Your task to perform on an android device: change keyboard looks Image 0: 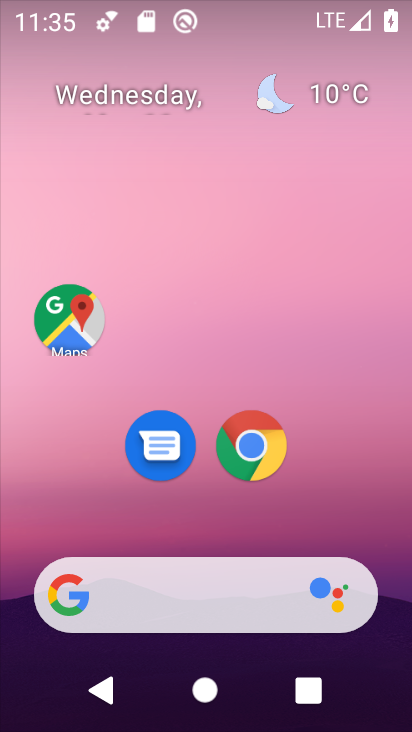
Step 0: drag from (231, 457) to (304, 23)
Your task to perform on an android device: change keyboard looks Image 1: 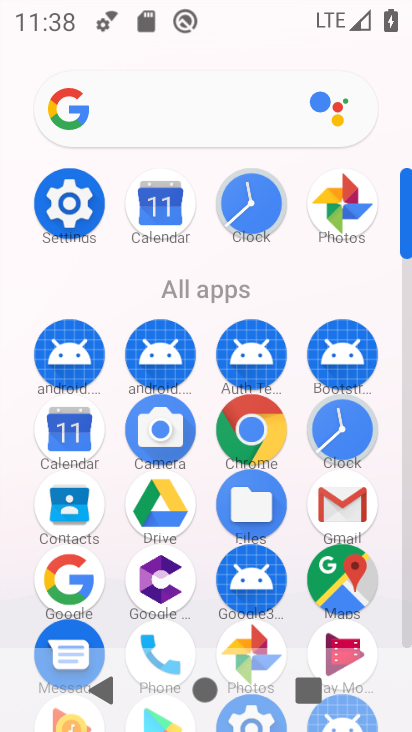
Step 1: click (60, 193)
Your task to perform on an android device: change keyboard looks Image 2: 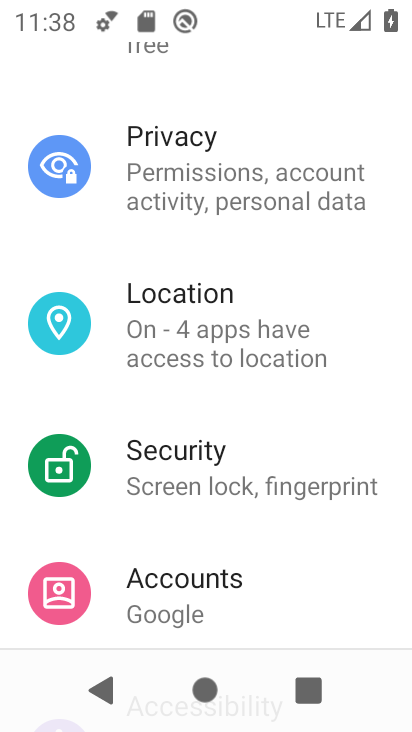
Step 2: drag from (246, 527) to (335, 43)
Your task to perform on an android device: change keyboard looks Image 3: 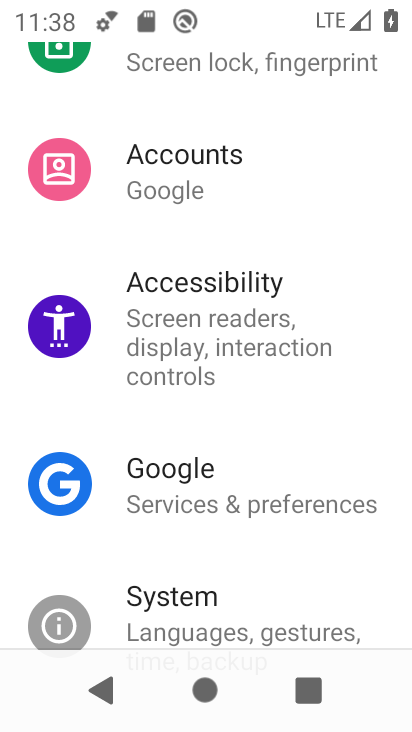
Step 3: drag from (187, 582) to (321, 122)
Your task to perform on an android device: change keyboard looks Image 4: 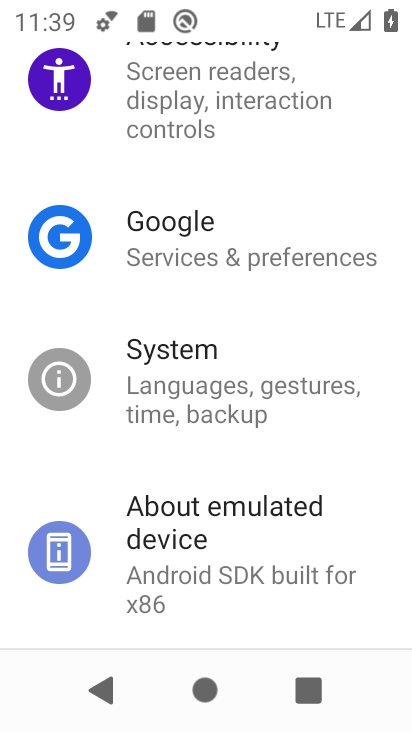
Step 4: drag from (169, 547) to (338, 0)
Your task to perform on an android device: change keyboard looks Image 5: 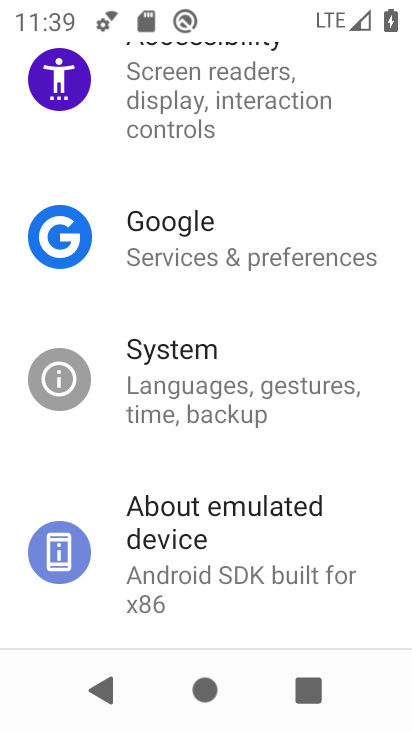
Step 5: click (208, 368)
Your task to perform on an android device: change keyboard looks Image 6: 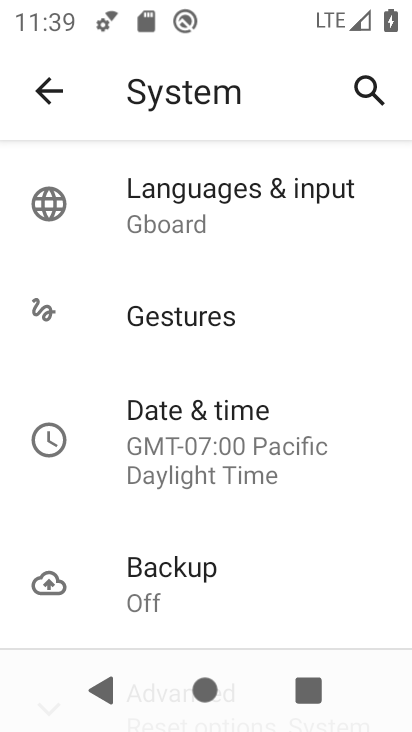
Step 6: click (177, 216)
Your task to perform on an android device: change keyboard looks Image 7: 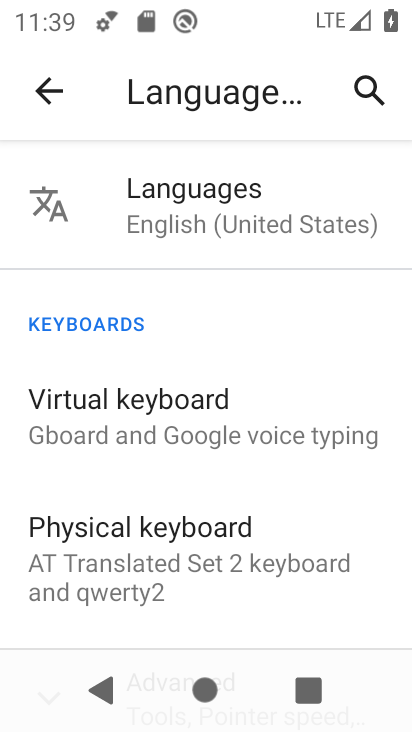
Step 7: click (113, 412)
Your task to perform on an android device: change keyboard looks Image 8: 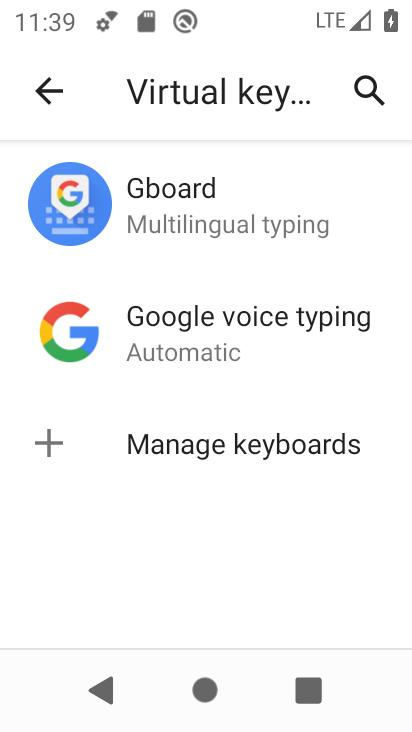
Step 8: click (152, 222)
Your task to perform on an android device: change keyboard looks Image 9: 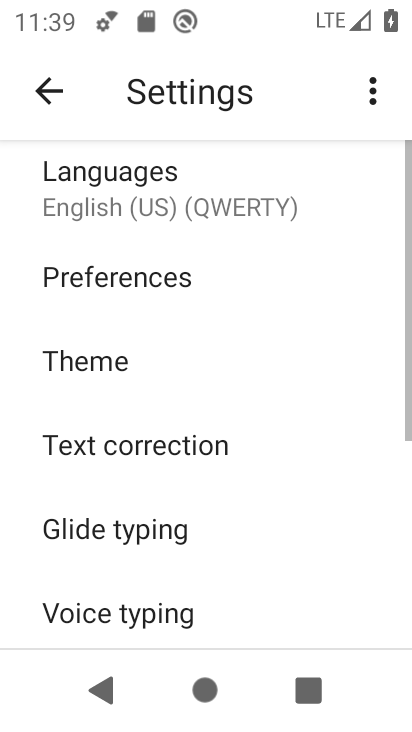
Step 9: click (88, 361)
Your task to perform on an android device: change keyboard looks Image 10: 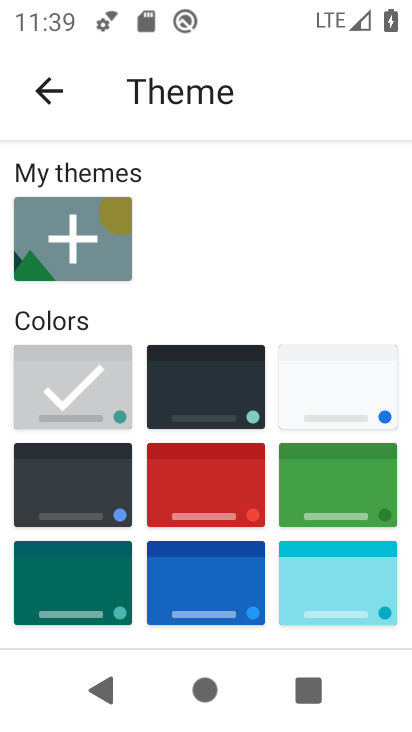
Step 10: click (194, 474)
Your task to perform on an android device: change keyboard looks Image 11: 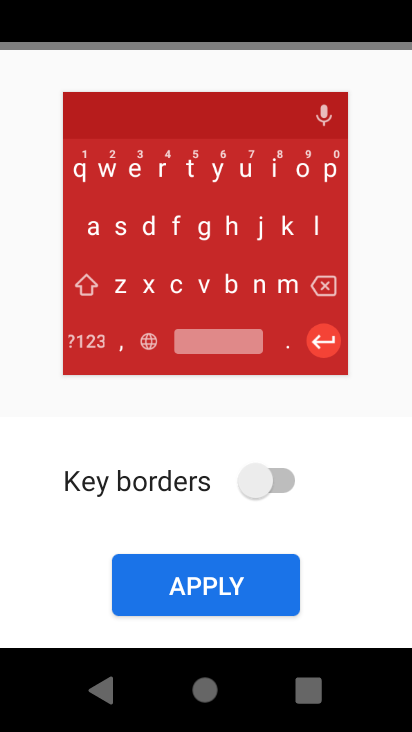
Step 11: click (171, 576)
Your task to perform on an android device: change keyboard looks Image 12: 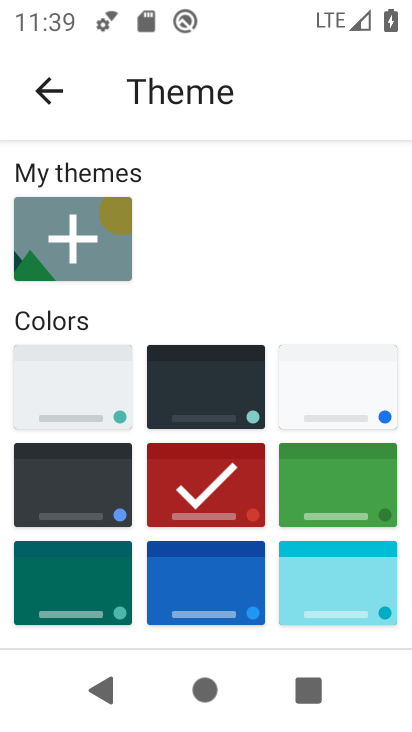
Step 12: task complete